Your task to perform on an android device: Do I have any events today? Image 0: 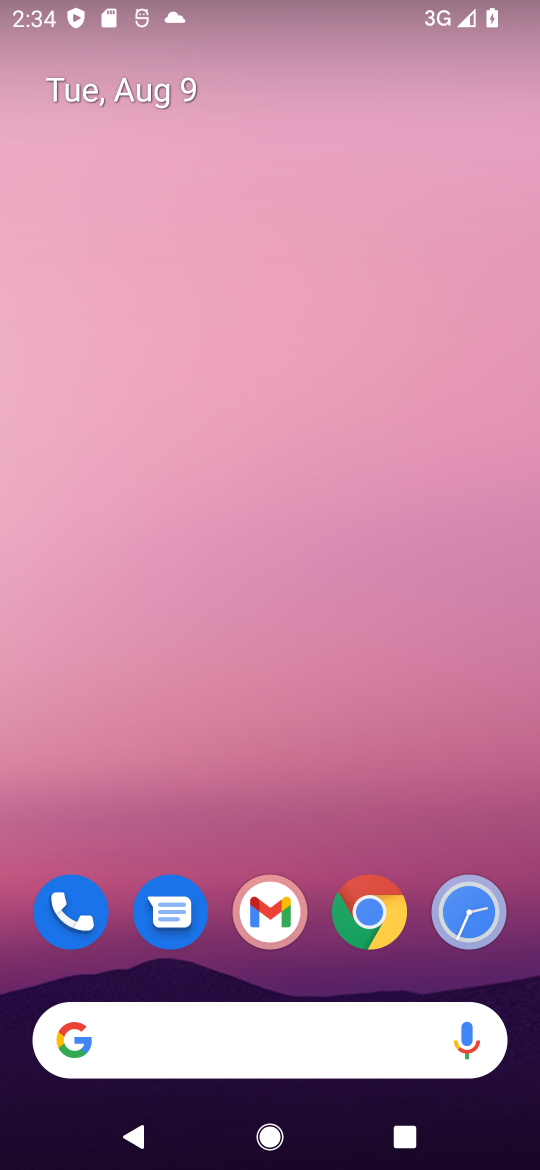
Step 0: drag from (328, 788) to (351, 9)
Your task to perform on an android device: Do I have any events today? Image 1: 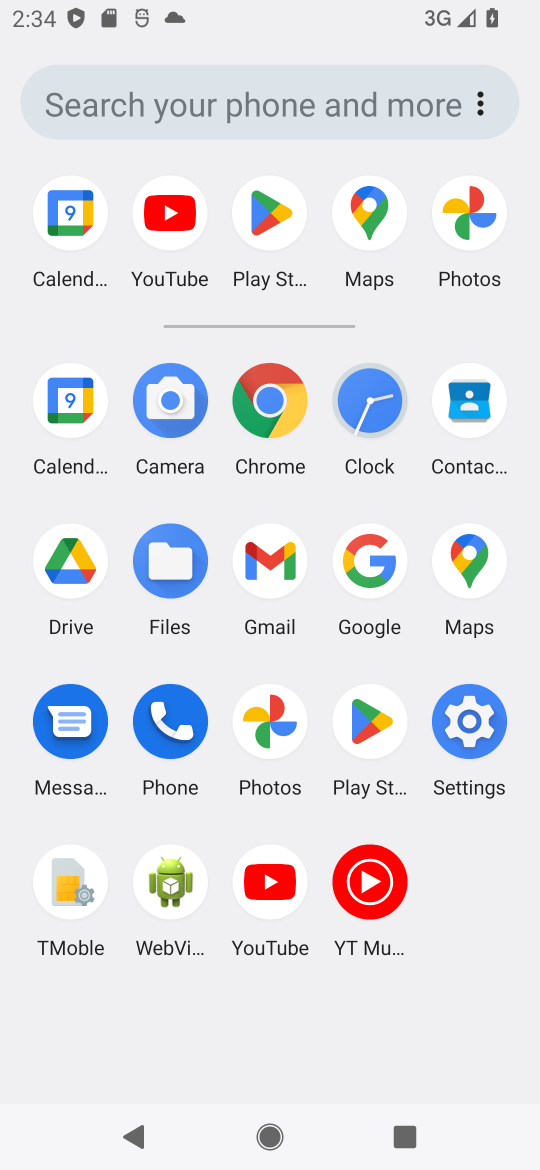
Step 1: click (72, 387)
Your task to perform on an android device: Do I have any events today? Image 2: 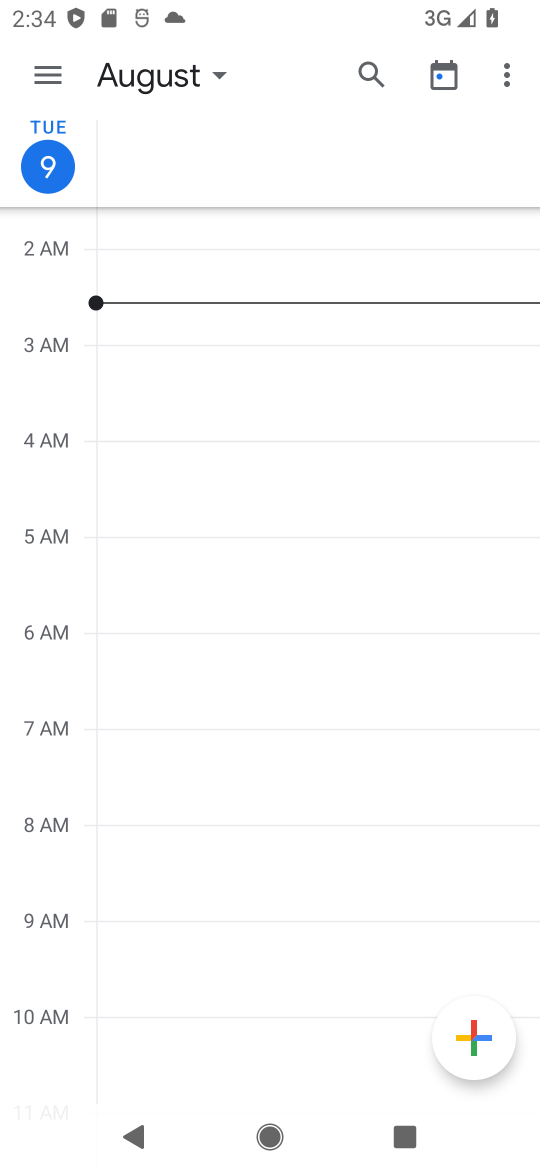
Step 2: task complete